Your task to perform on an android device: Go to Maps Image 0: 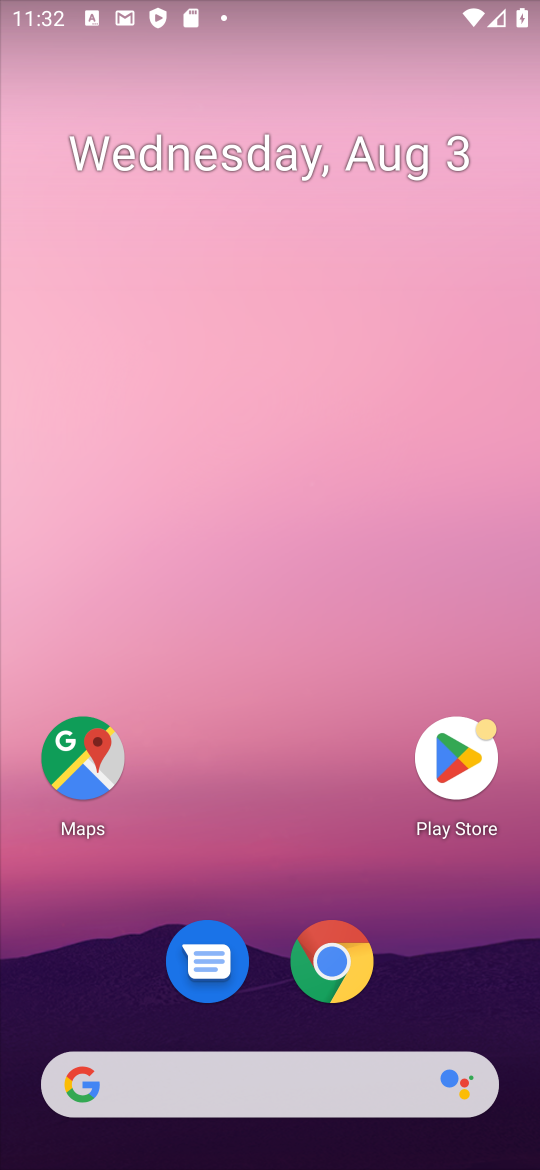
Step 0: click (74, 757)
Your task to perform on an android device: Go to Maps Image 1: 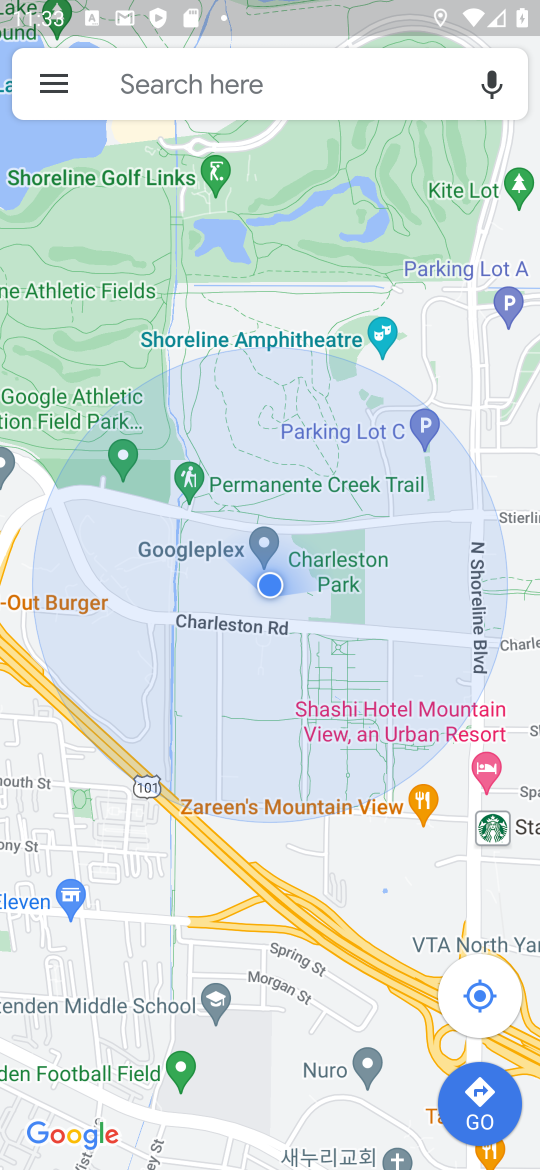
Step 1: task complete